Your task to perform on an android device: turn off picture-in-picture Image 0: 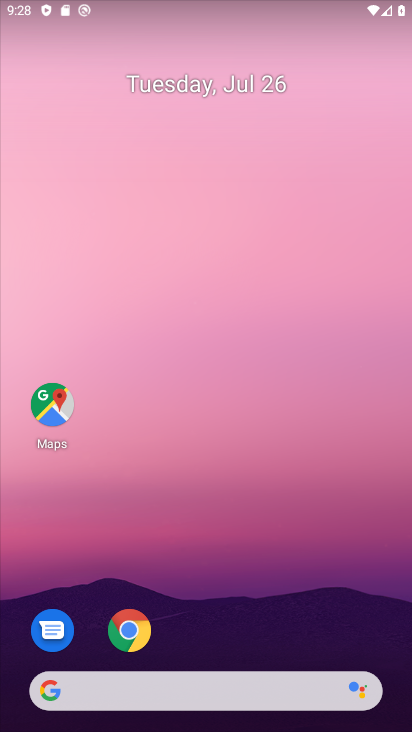
Step 0: drag from (390, 677) to (322, 108)
Your task to perform on an android device: turn off picture-in-picture Image 1: 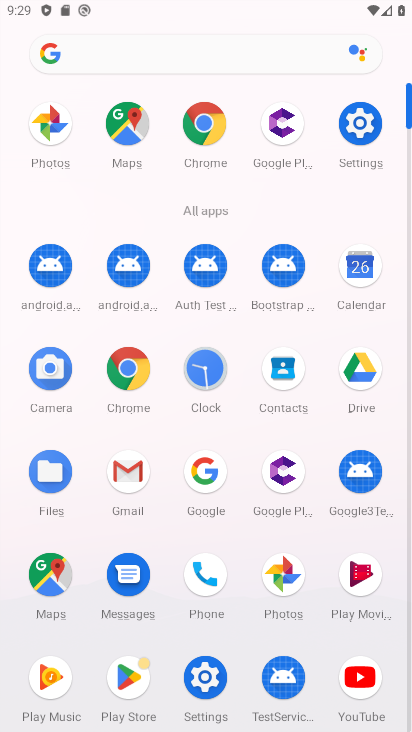
Step 1: click (205, 678)
Your task to perform on an android device: turn off picture-in-picture Image 2: 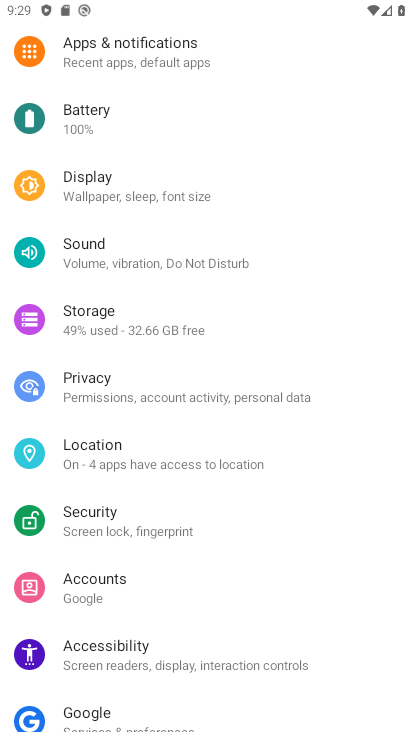
Step 2: click (116, 56)
Your task to perform on an android device: turn off picture-in-picture Image 3: 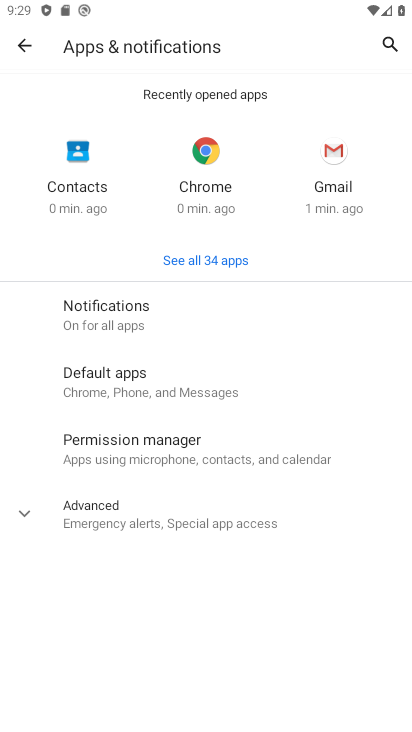
Step 3: click (27, 513)
Your task to perform on an android device: turn off picture-in-picture Image 4: 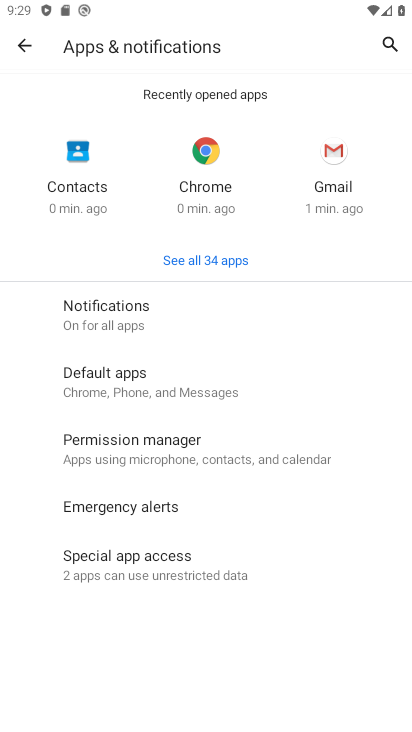
Step 4: click (114, 565)
Your task to perform on an android device: turn off picture-in-picture Image 5: 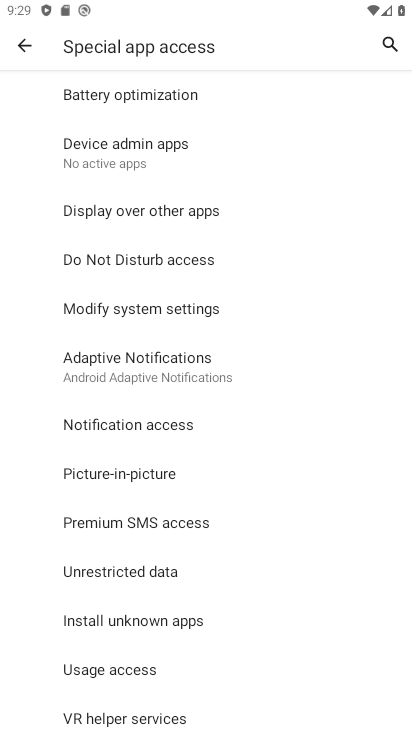
Step 5: click (103, 469)
Your task to perform on an android device: turn off picture-in-picture Image 6: 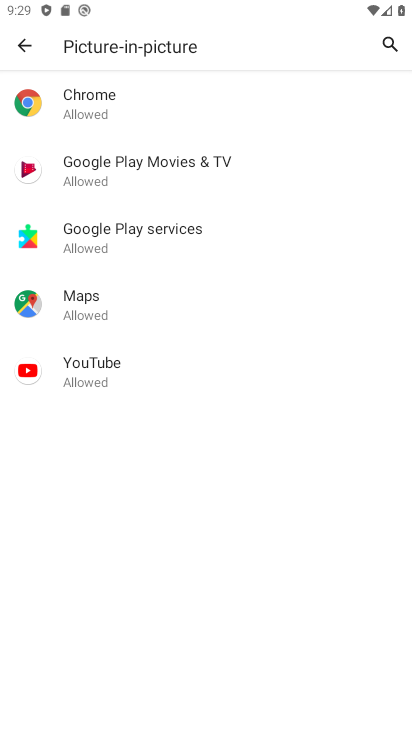
Step 6: click (84, 349)
Your task to perform on an android device: turn off picture-in-picture Image 7: 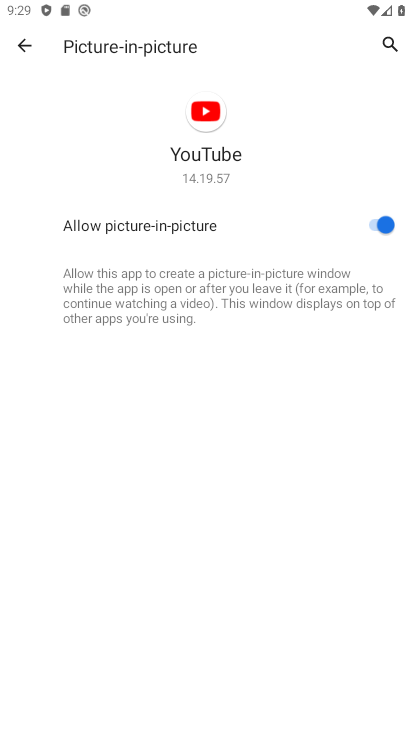
Step 7: click (371, 224)
Your task to perform on an android device: turn off picture-in-picture Image 8: 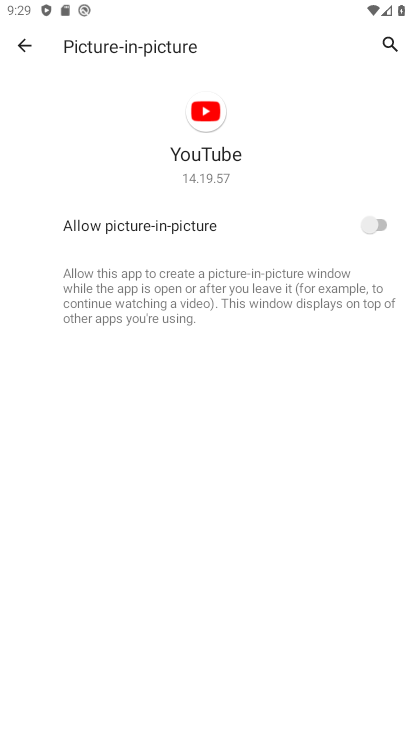
Step 8: task complete